Your task to perform on an android device: turn smart compose on in the gmail app Image 0: 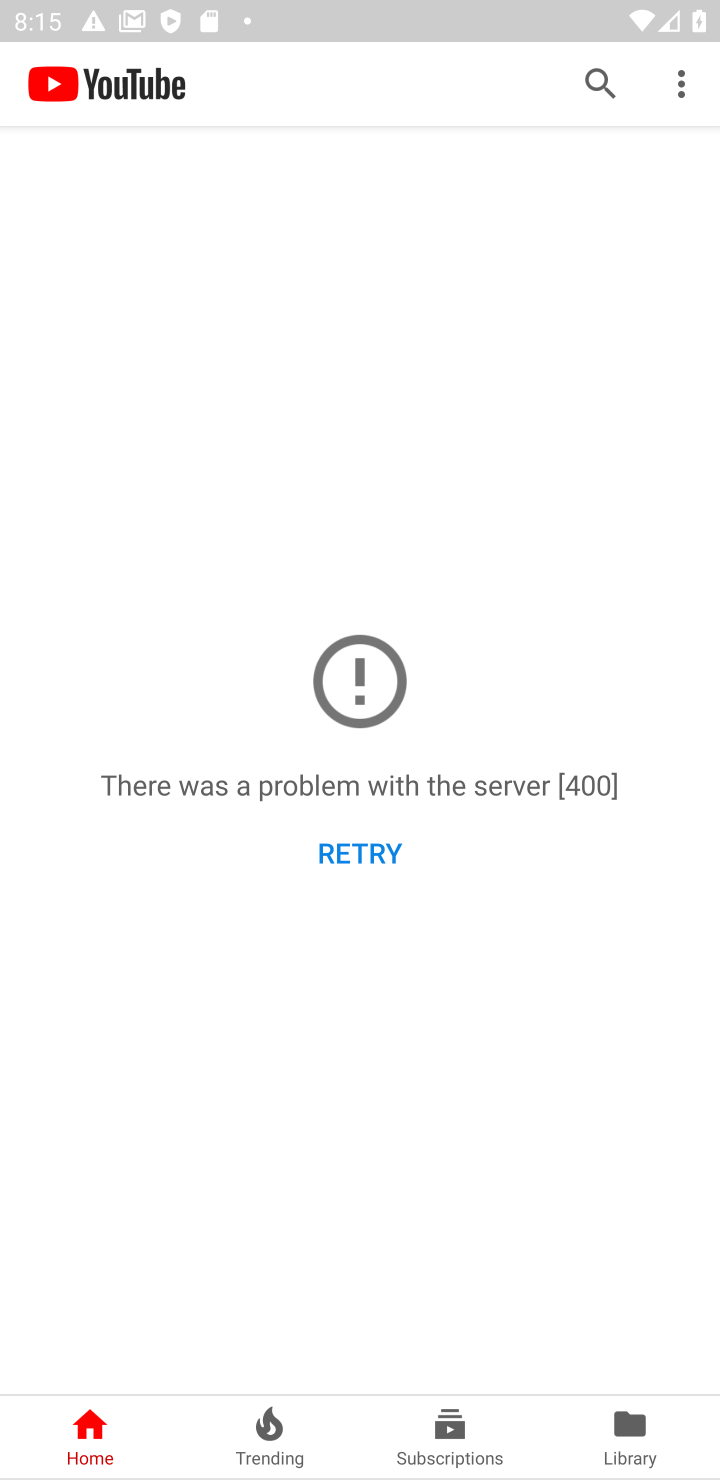
Step 0: press home button
Your task to perform on an android device: turn smart compose on in the gmail app Image 1: 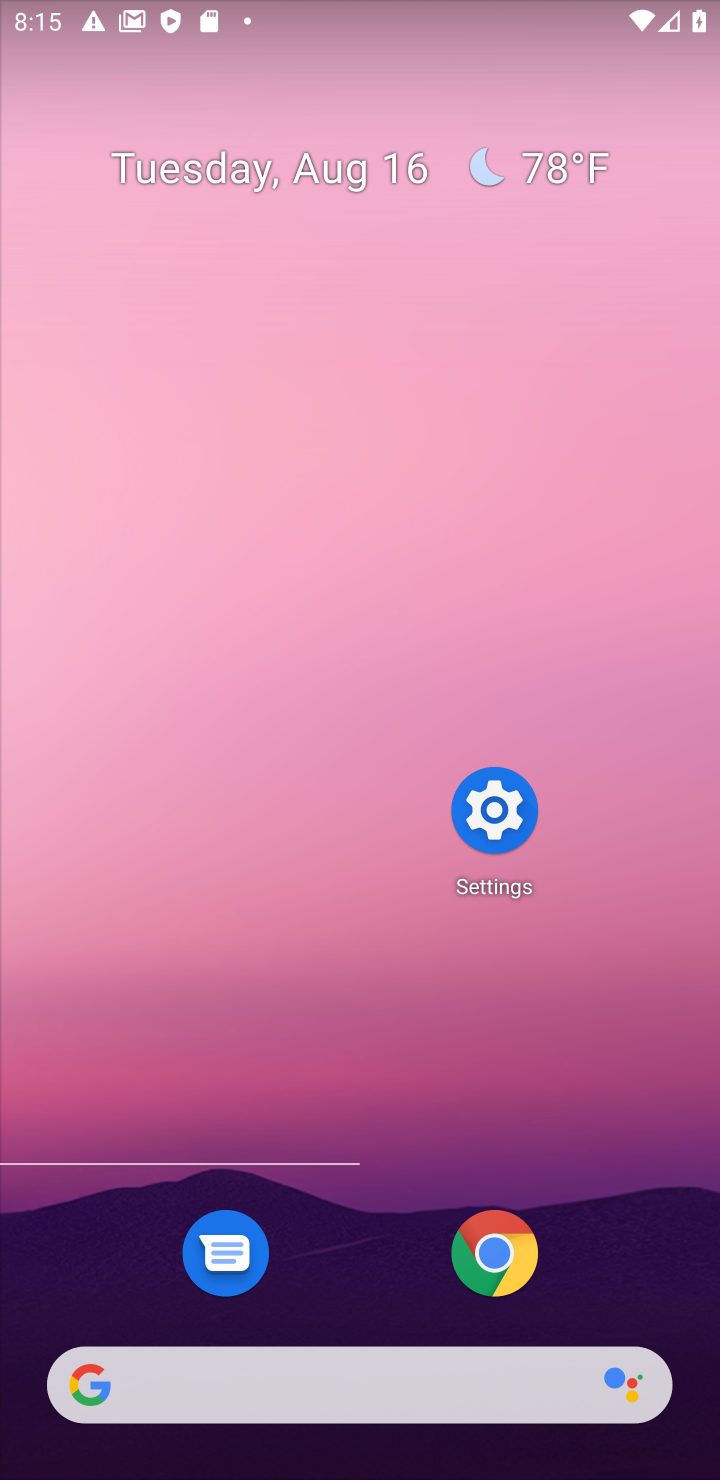
Step 1: drag from (504, 858) to (561, 188)
Your task to perform on an android device: turn smart compose on in the gmail app Image 2: 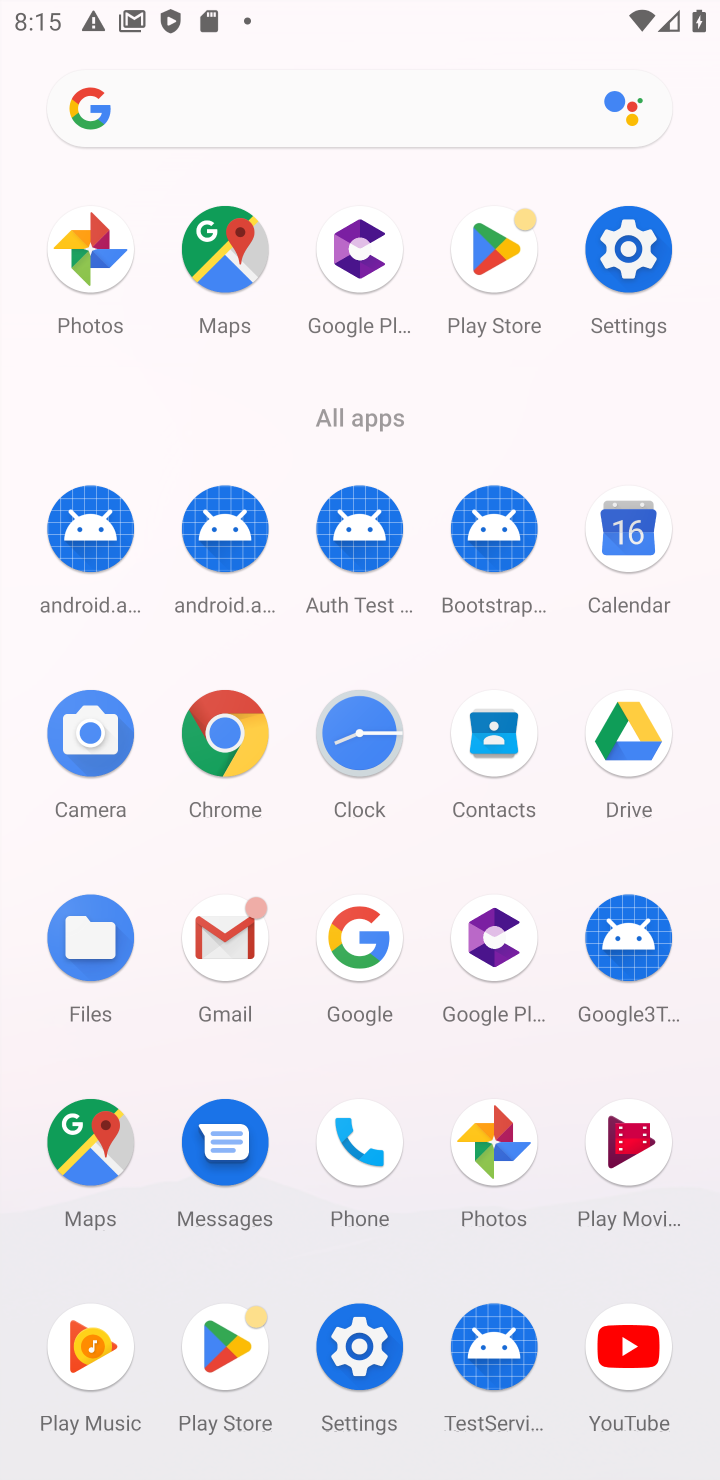
Step 2: click (231, 943)
Your task to perform on an android device: turn smart compose on in the gmail app Image 3: 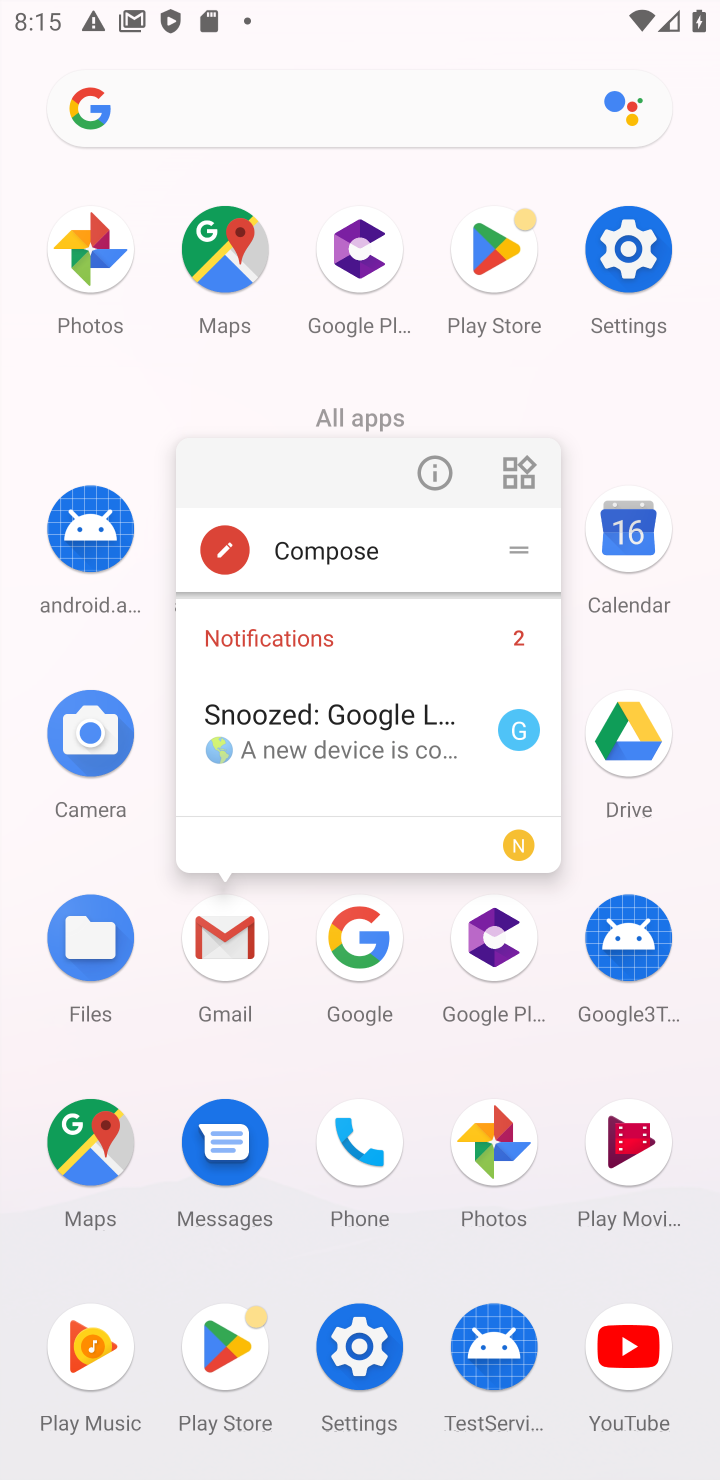
Step 3: click (225, 949)
Your task to perform on an android device: turn smart compose on in the gmail app Image 4: 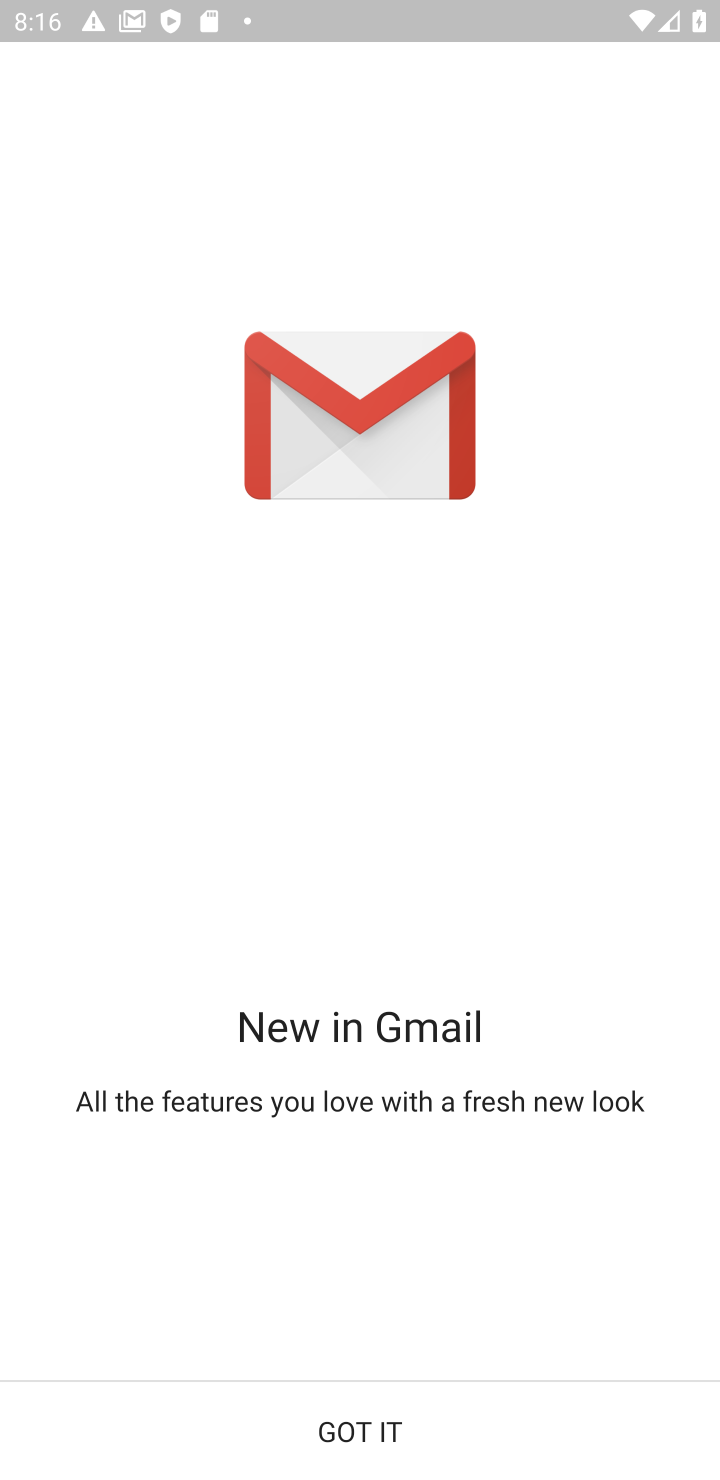
Step 4: click (359, 1424)
Your task to perform on an android device: turn smart compose on in the gmail app Image 5: 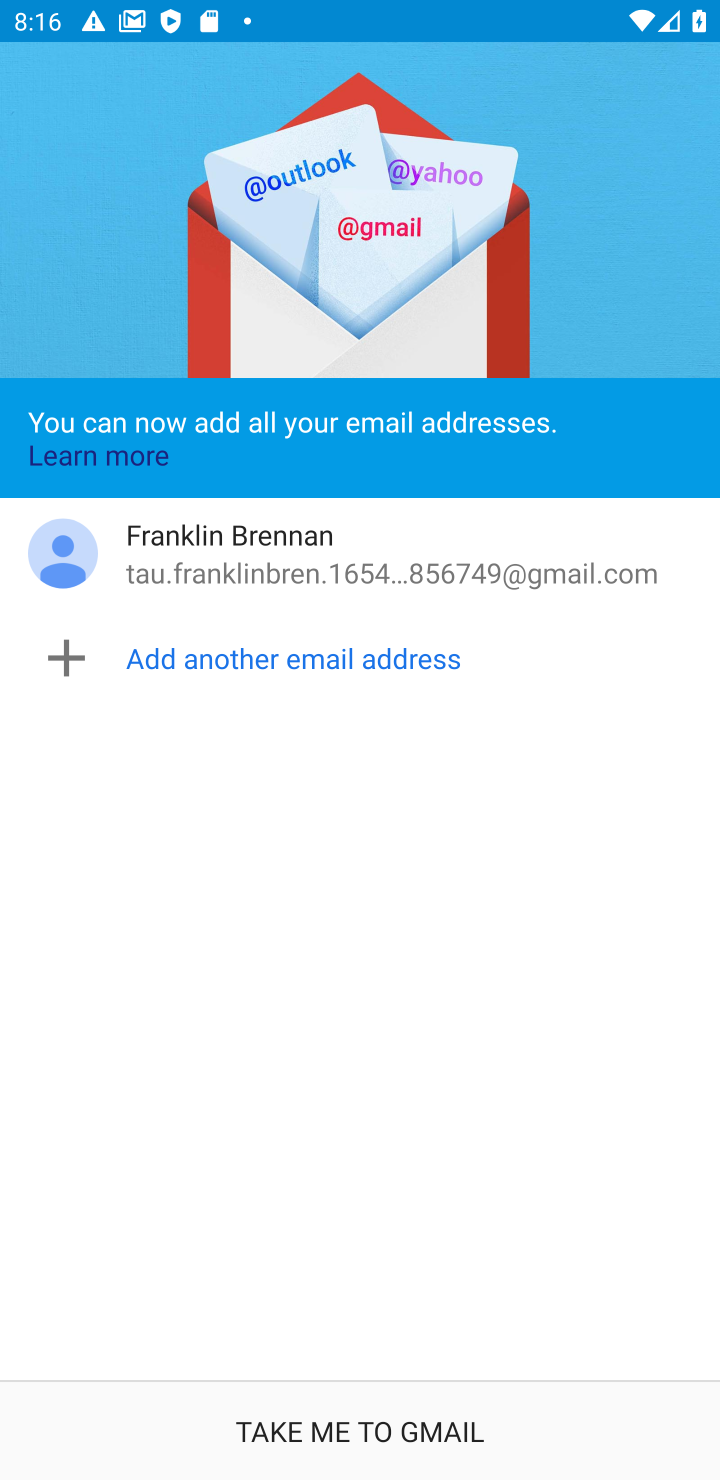
Step 5: click (376, 1424)
Your task to perform on an android device: turn smart compose on in the gmail app Image 6: 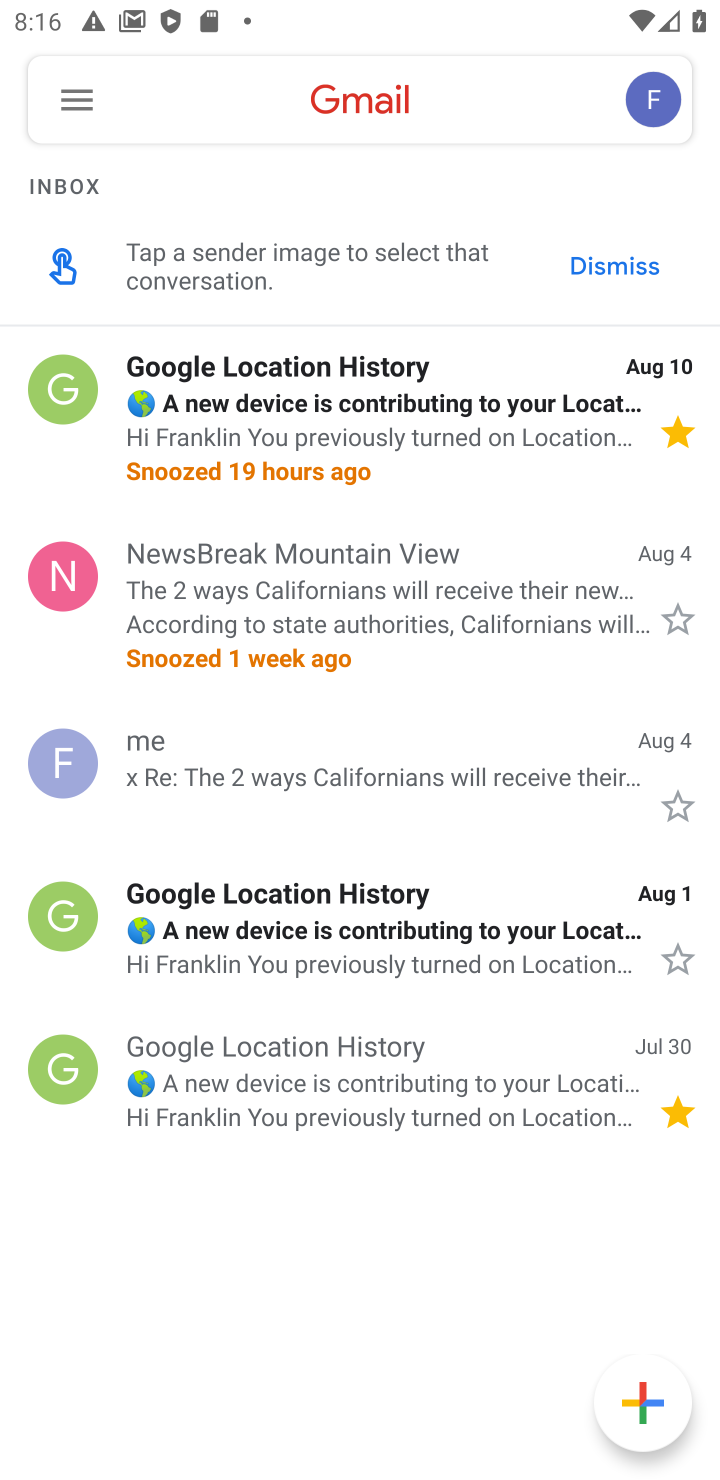
Step 6: click (73, 103)
Your task to perform on an android device: turn smart compose on in the gmail app Image 7: 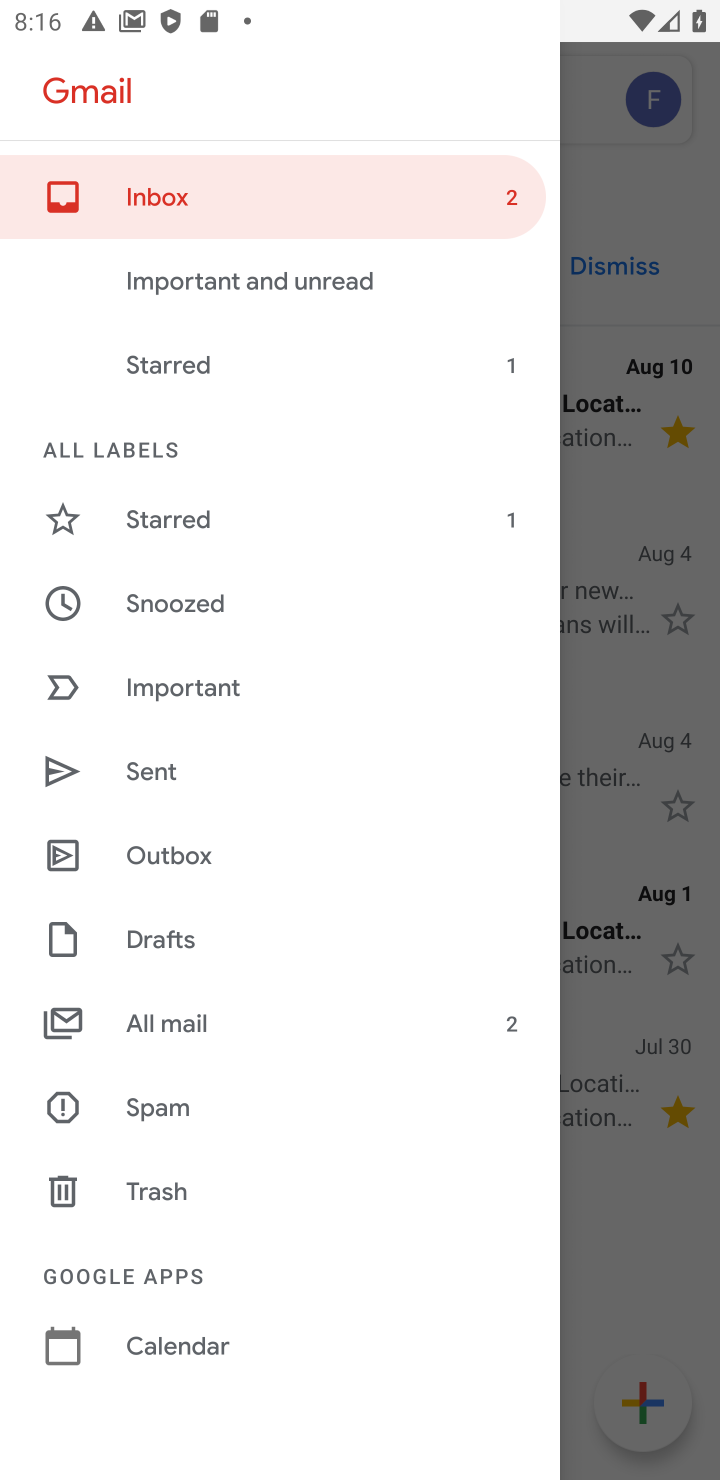
Step 7: drag from (260, 1305) to (521, 168)
Your task to perform on an android device: turn smart compose on in the gmail app Image 8: 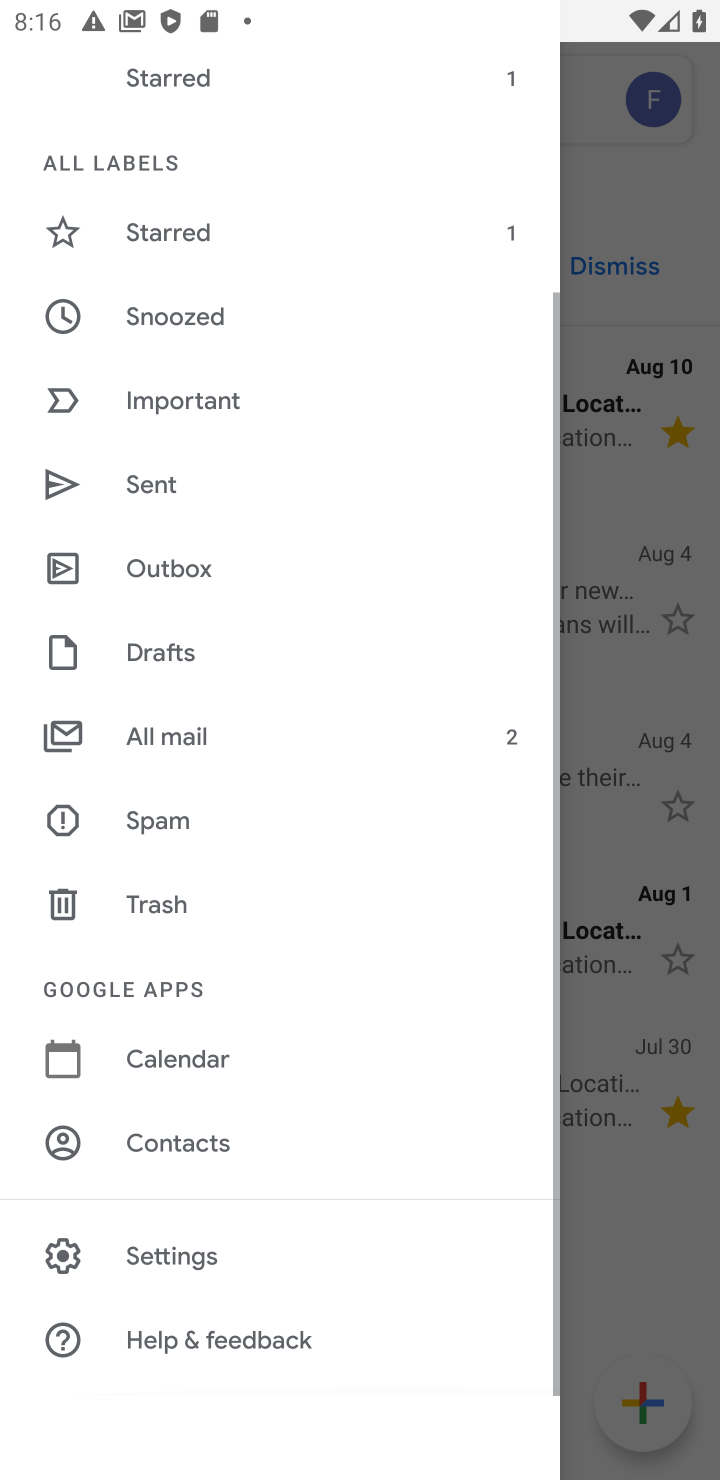
Step 8: click (190, 1254)
Your task to perform on an android device: turn smart compose on in the gmail app Image 9: 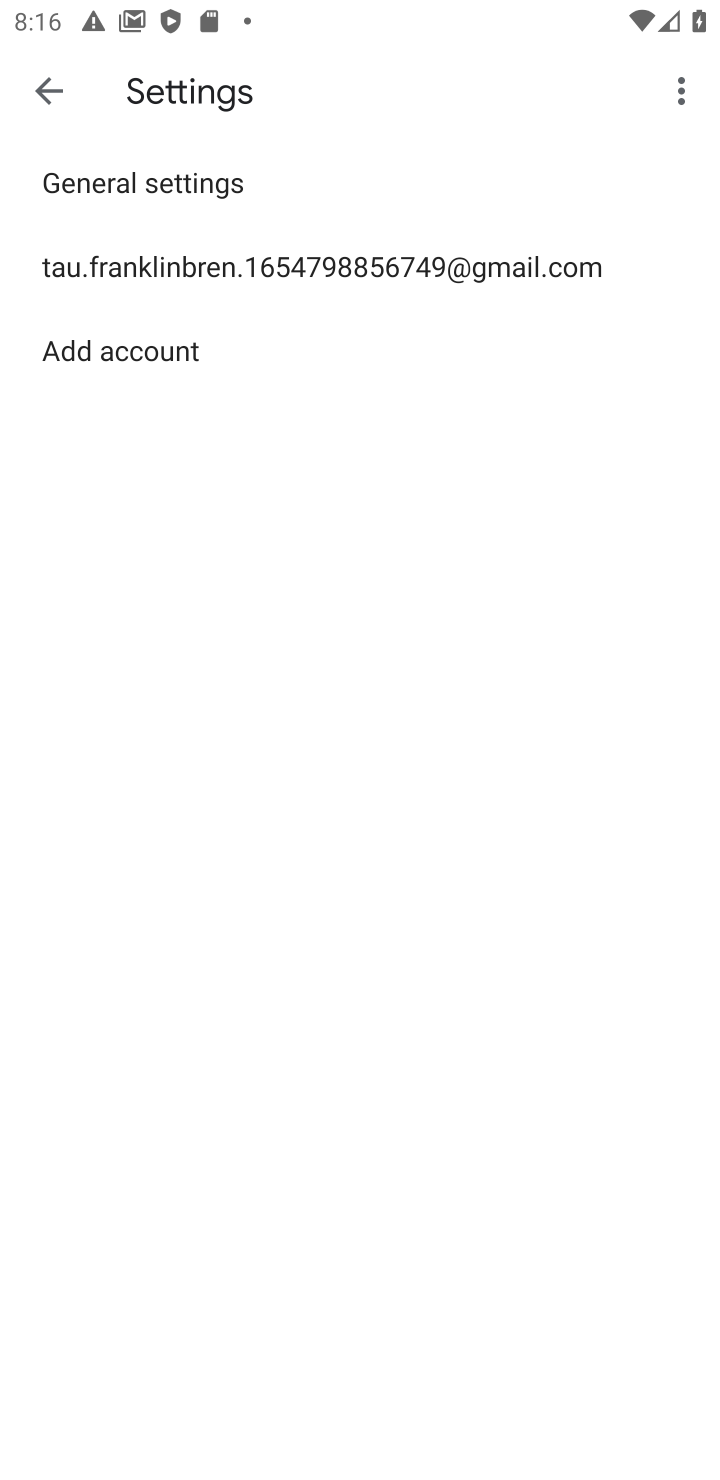
Step 9: click (443, 273)
Your task to perform on an android device: turn smart compose on in the gmail app Image 10: 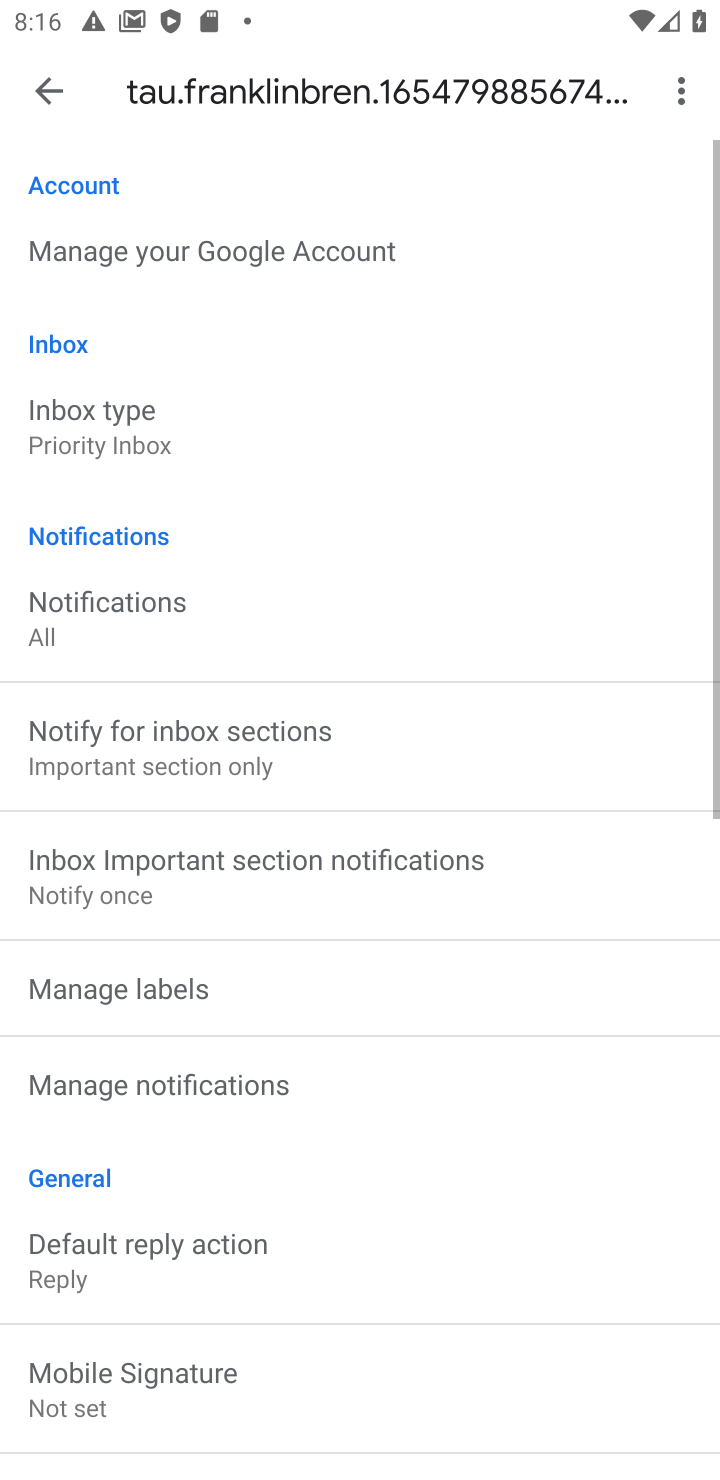
Step 10: task complete